Your task to perform on an android device: Open the calendar and show me this week's events? Image 0: 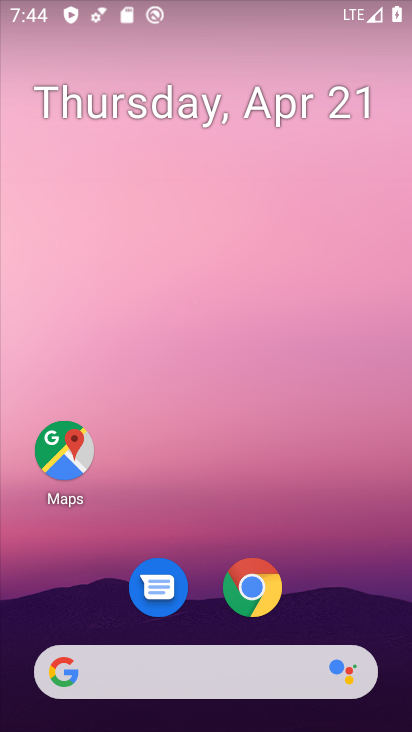
Step 0: drag from (355, 274) to (355, 158)
Your task to perform on an android device: Open the calendar and show me this week's events? Image 1: 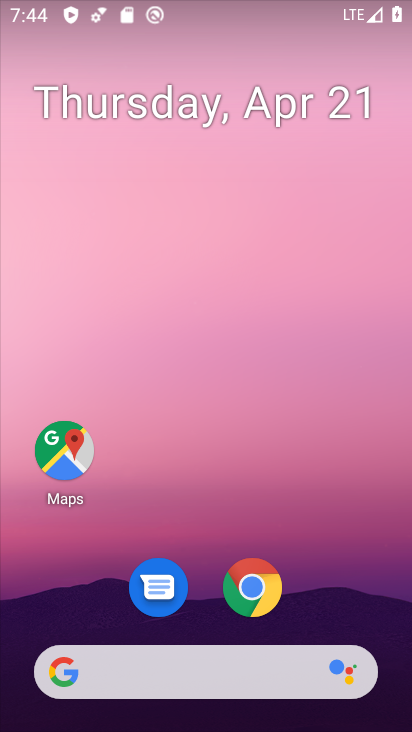
Step 1: drag from (383, 617) to (349, 239)
Your task to perform on an android device: Open the calendar and show me this week's events? Image 2: 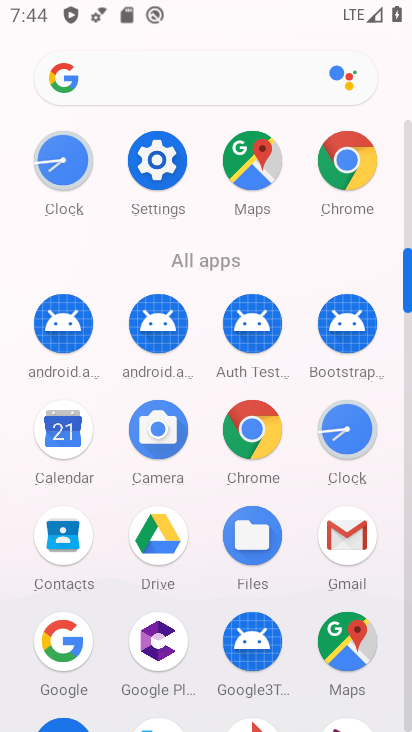
Step 2: drag from (409, 259) to (407, 131)
Your task to perform on an android device: Open the calendar and show me this week's events? Image 3: 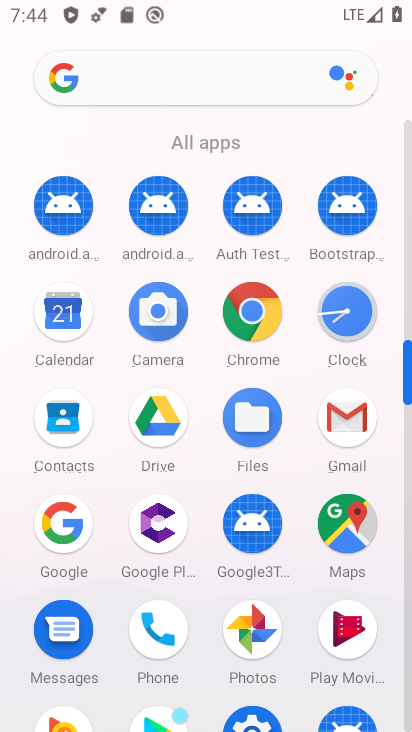
Step 3: click (53, 317)
Your task to perform on an android device: Open the calendar and show me this week's events? Image 4: 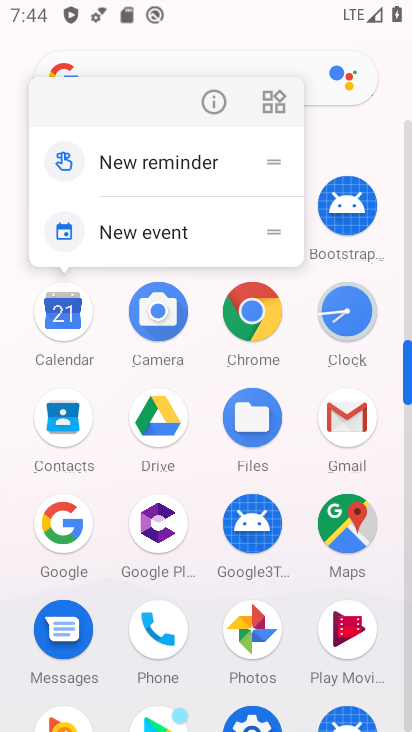
Step 4: click (49, 315)
Your task to perform on an android device: Open the calendar and show me this week's events? Image 5: 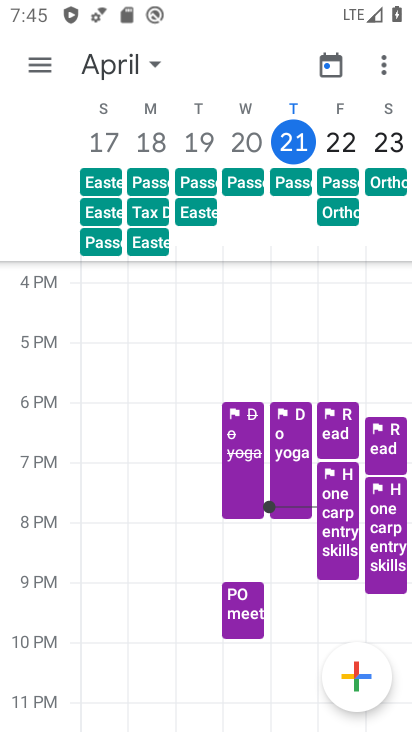
Step 5: click (34, 58)
Your task to perform on an android device: Open the calendar and show me this week's events? Image 6: 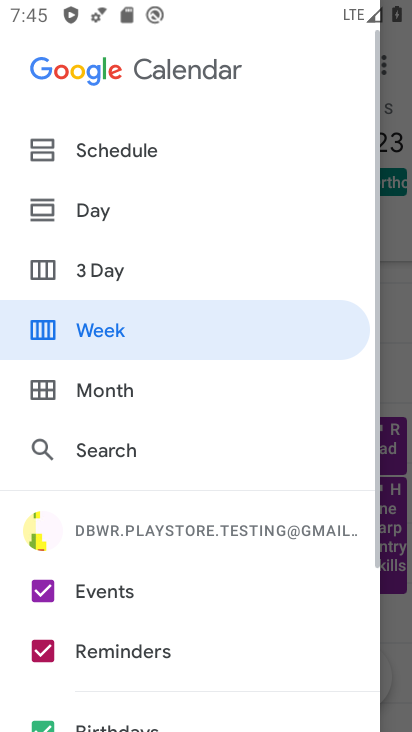
Step 6: click (70, 334)
Your task to perform on an android device: Open the calendar and show me this week's events? Image 7: 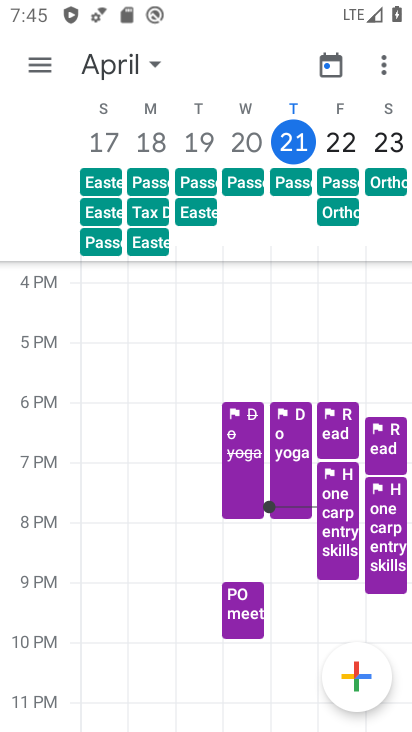
Step 7: task complete